Your task to perform on an android device: clear all cookies in the chrome app Image 0: 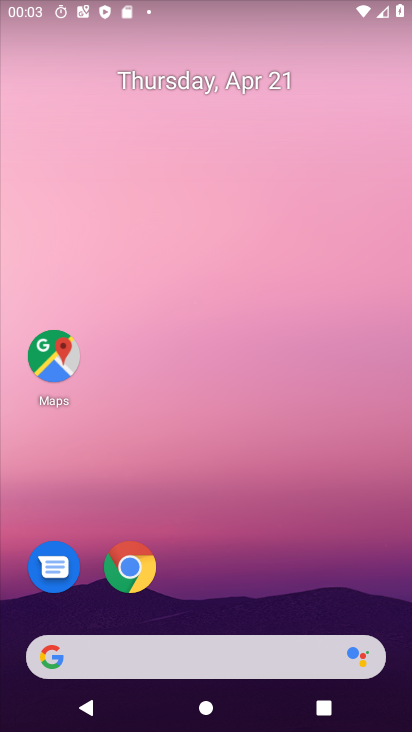
Step 0: drag from (245, 575) to (272, 203)
Your task to perform on an android device: clear all cookies in the chrome app Image 1: 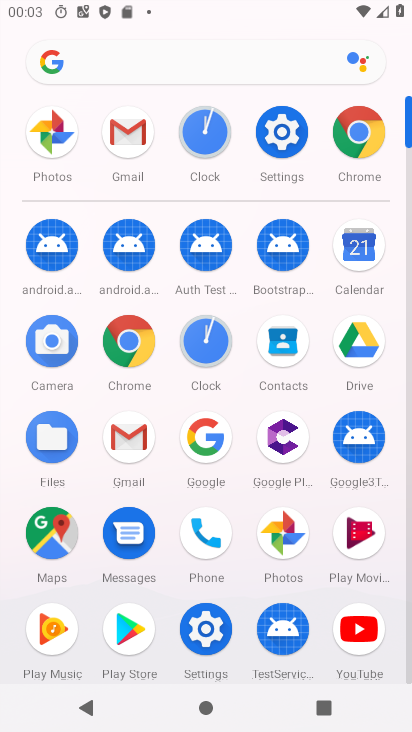
Step 1: click (126, 338)
Your task to perform on an android device: clear all cookies in the chrome app Image 2: 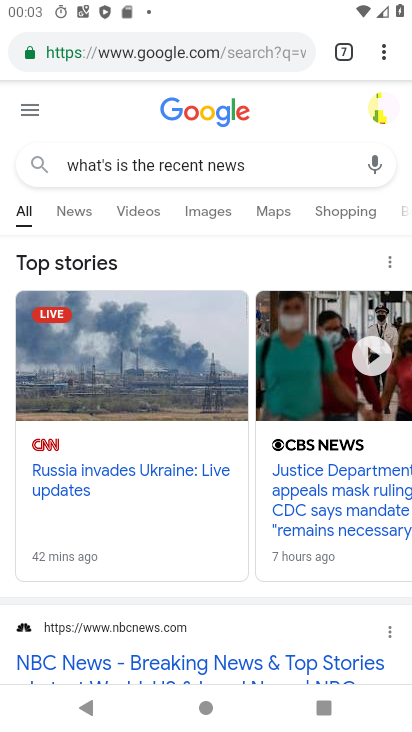
Step 2: click (375, 40)
Your task to perform on an android device: clear all cookies in the chrome app Image 3: 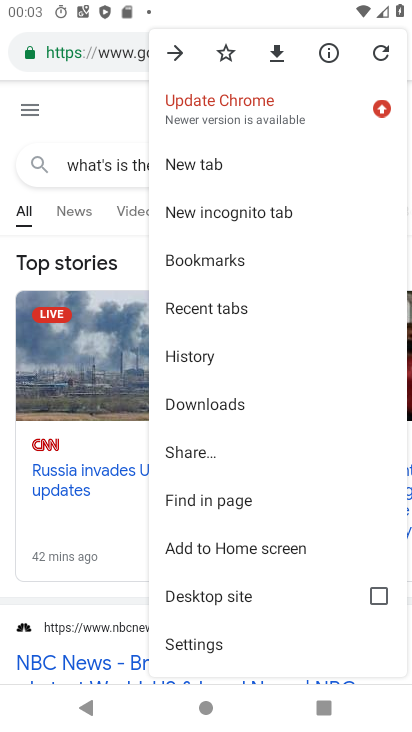
Step 3: click (222, 579)
Your task to perform on an android device: clear all cookies in the chrome app Image 4: 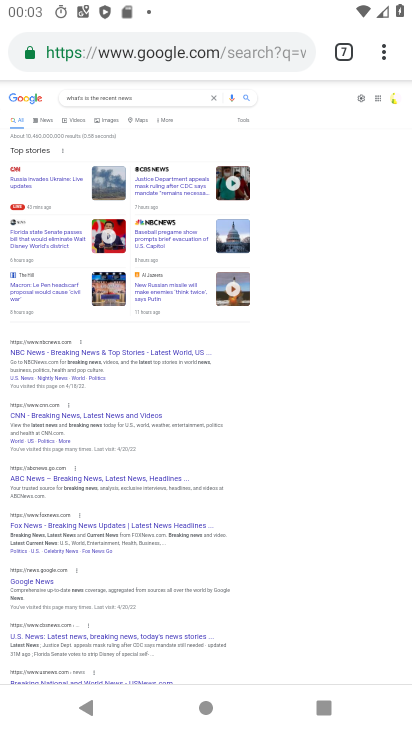
Step 4: click (376, 52)
Your task to perform on an android device: clear all cookies in the chrome app Image 5: 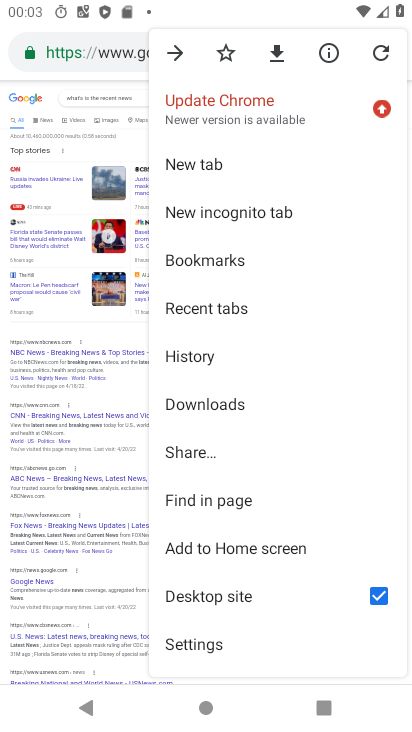
Step 5: drag from (172, 631) to (281, 205)
Your task to perform on an android device: clear all cookies in the chrome app Image 6: 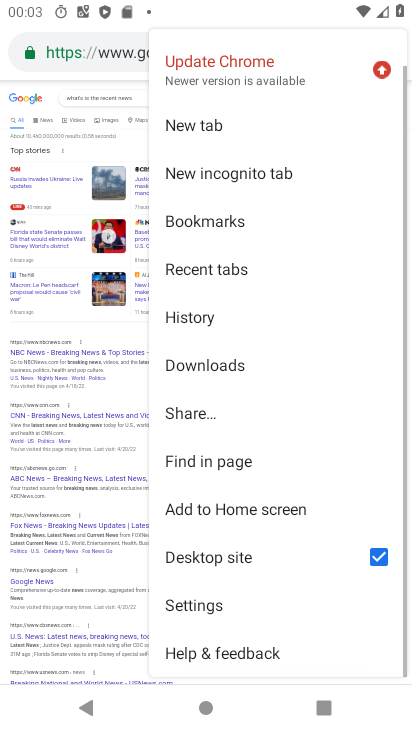
Step 6: click (195, 603)
Your task to perform on an android device: clear all cookies in the chrome app Image 7: 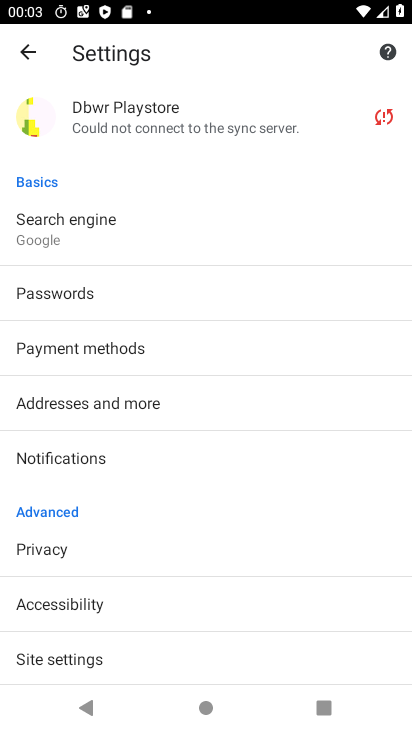
Step 7: drag from (150, 586) to (253, 165)
Your task to perform on an android device: clear all cookies in the chrome app Image 8: 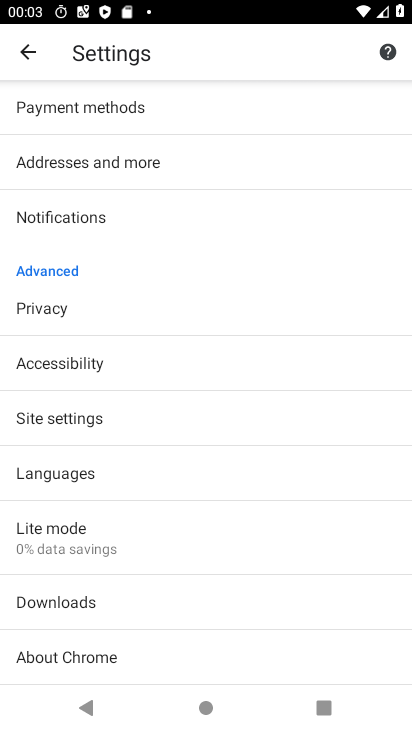
Step 8: click (117, 412)
Your task to perform on an android device: clear all cookies in the chrome app Image 9: 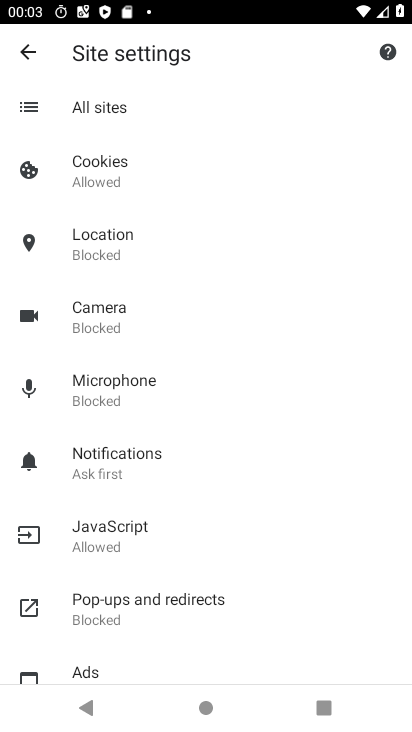
Step 9: click (161, 164)
Your task to perform on an android device: clear all cookies in the chrome app Image 10: 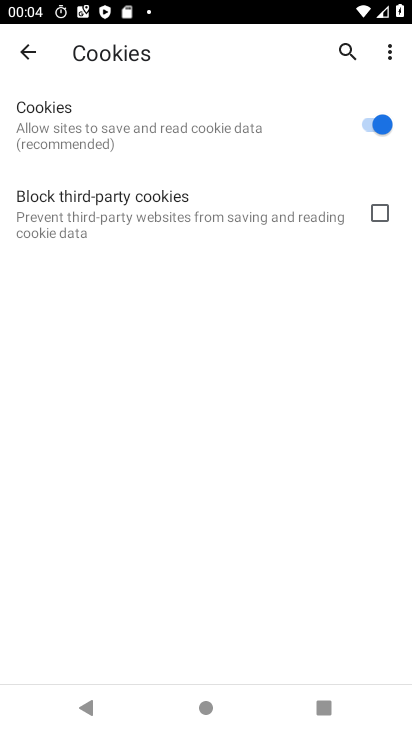
Step 10: task complete